Your task to perform on an android device: Show me popular games on the Play Store Image 0: 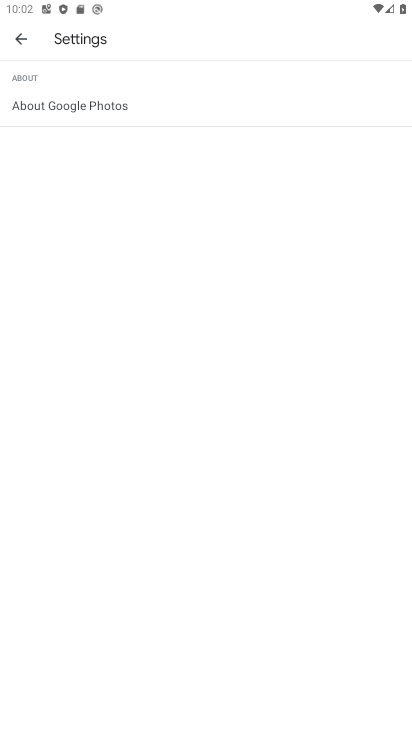
Step 0: press home button
Your task to perform on an android device: Show me popular games on the Play Store Image 1: 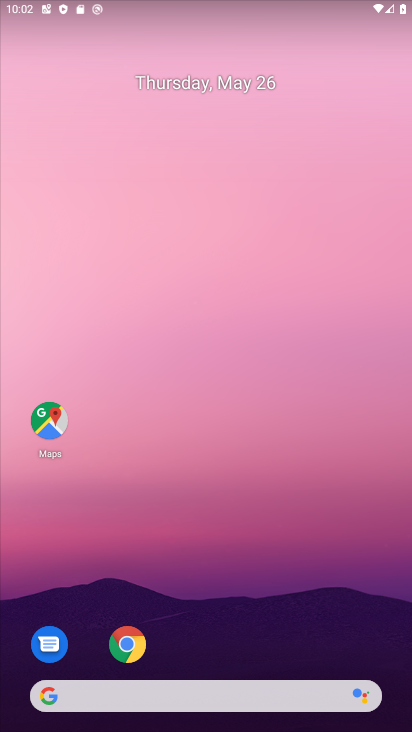
Step 1: drag from (322, 650) to (353, 162)
Your task to perform on an android device: Show me popular games on the Play Store Image 2: 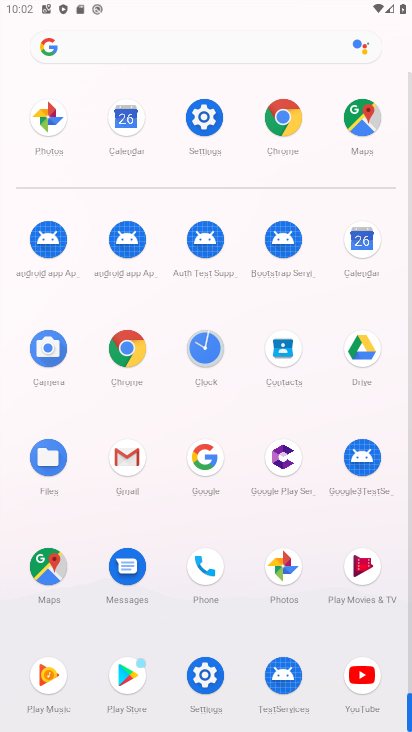
Step 2: click (368, 679)
Your task to perform on an android device: Show me popular games on the Play Store Image 3: 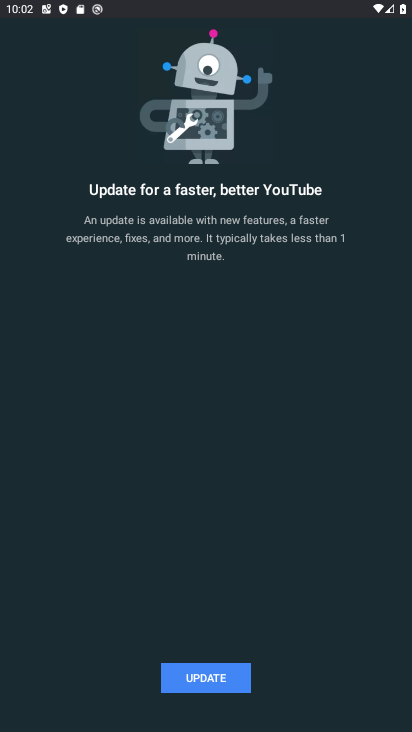
Step 3: press back button
Your task to perform on an android device: Show me popular games on the Play Store Image 4: 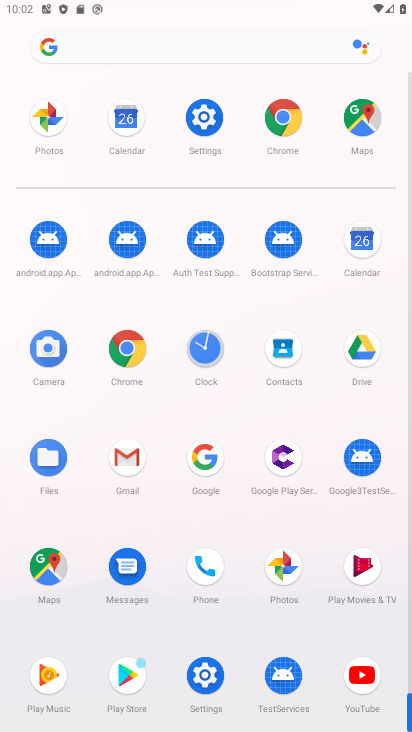
Step 4: click (127, 691)
Your task to perform on an android device: Show me popular games on the Play Store Image 5: 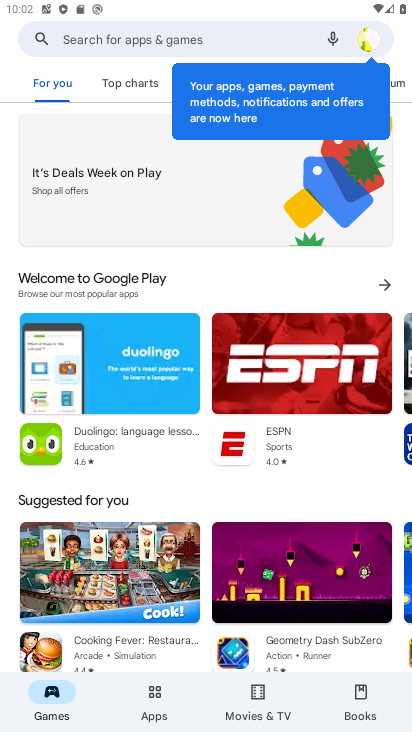
Step 5: task complete